Your task to perform on an android device: delete a single message in the gmail app Image 0: 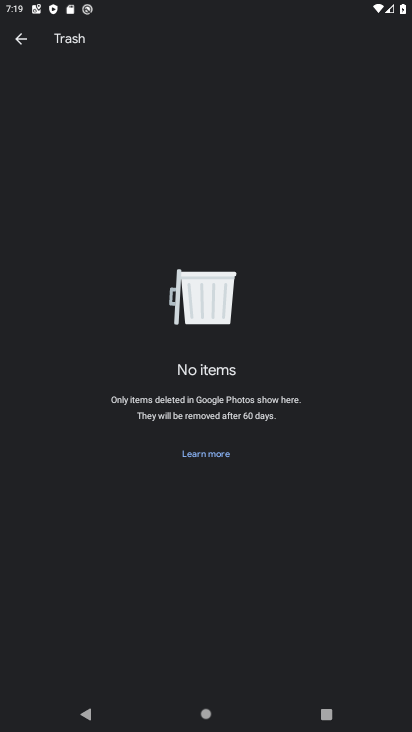
Step 0: press home button
Your task to perform on an android device: delete a single message in the gmail app Image 1: 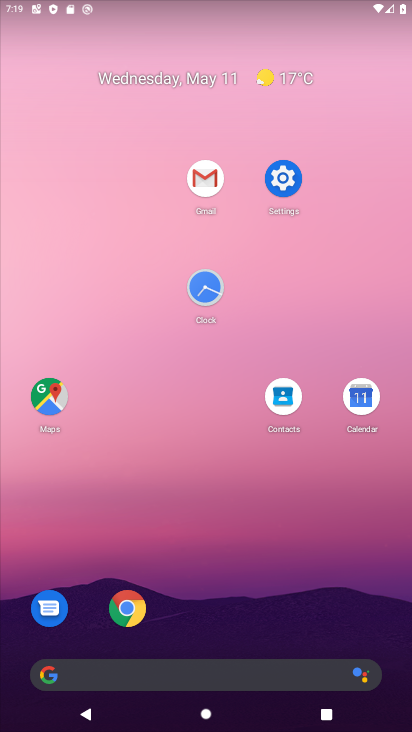
Step 1: click (199, 172)
Your task to perform on an android device: delete a single message in the gmail app Image 2: 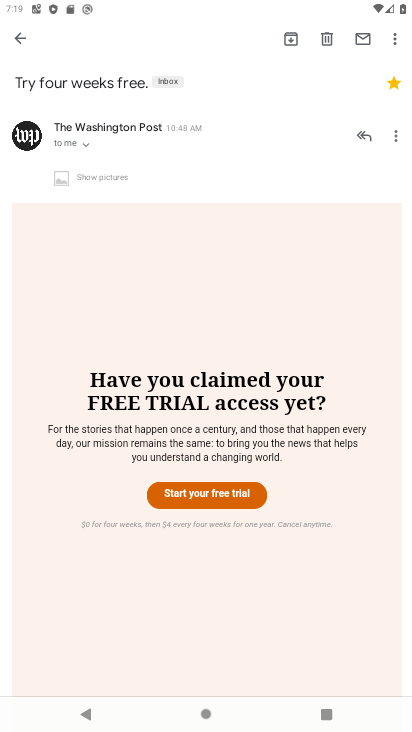
Step 2: click (397, 46)
Your task to perform on an android device: delete a single message in the gmail app Image 3: 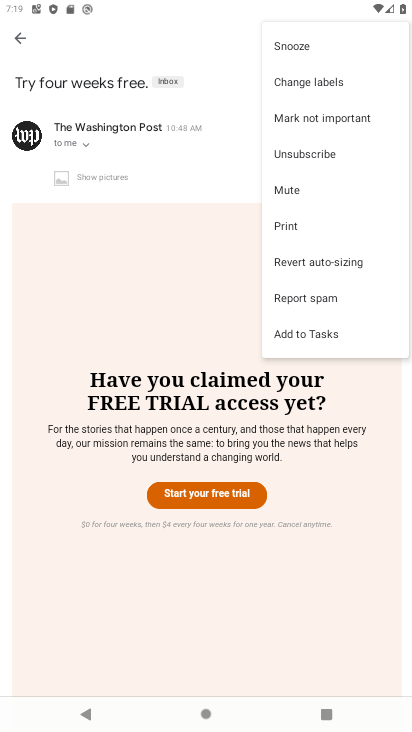
Step 3: click (241, 146)
Your task to perform on an android device: delete a single message in the gmail app Image 4: 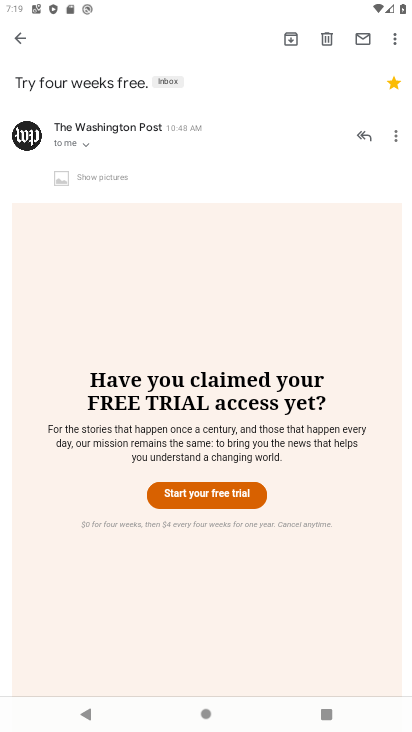
Step 4: click (324, 47)
Your task to perform on an android device: delete a single message in the gmail app Image 5: 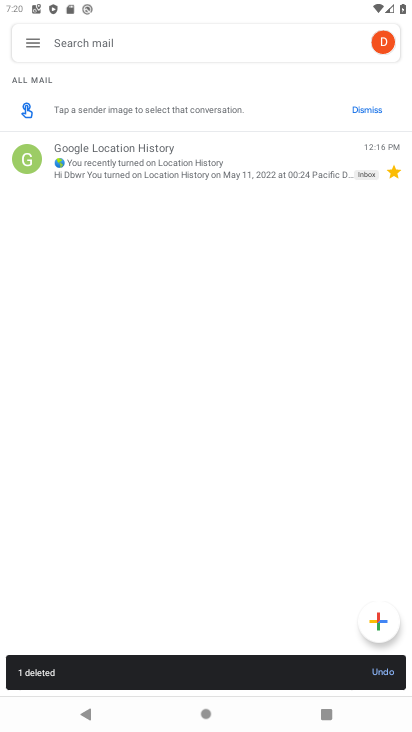
Step 5: task complete